Your task to perform on an android device: see sites visited before in the chrome app Image 0: 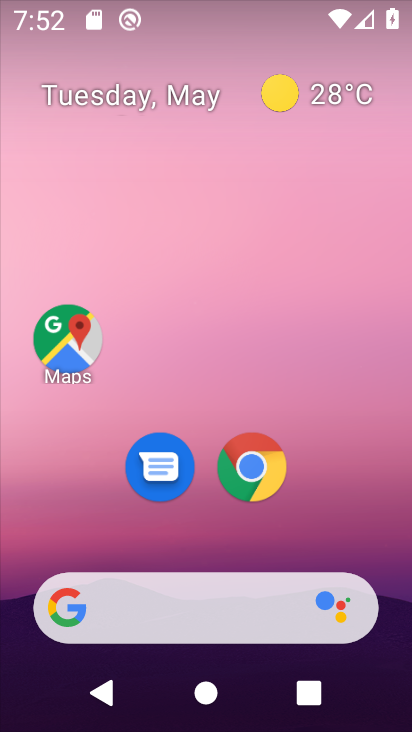
Step 0: click (257, 468)
Your task to perform on an android device: see sites visited before in the chrome app Image 1: 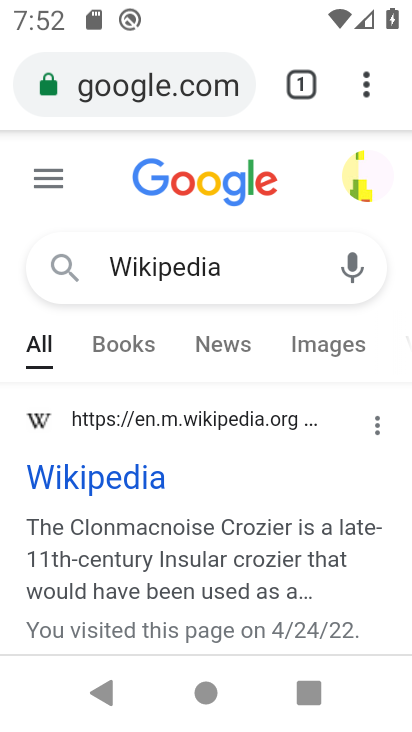
Step 1: click (365, 87)
Your task to perform on an android device: see sites visited before in the chrome app Image 2: 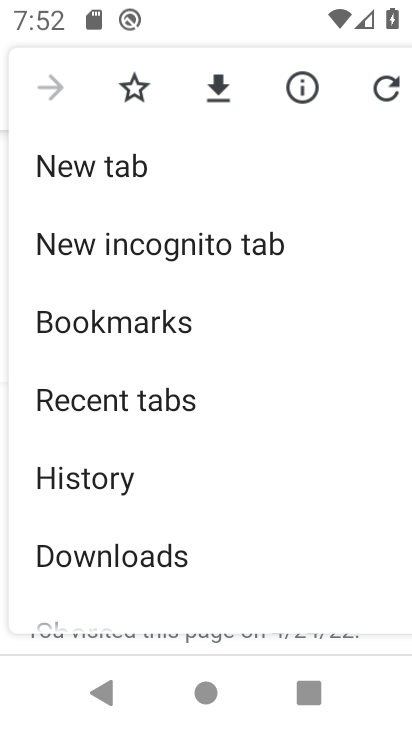
Step 2: drag from (247, 582) to (238, 272)
Your task to perform on an android device: see sites visited before in the chrome app Image 3: 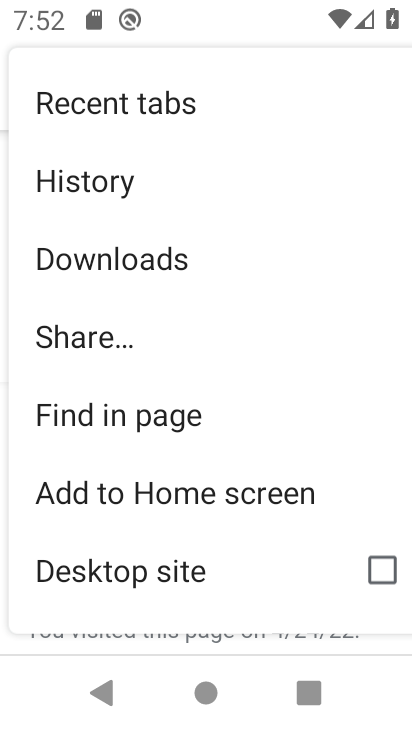
Step 3: drag from (287, 580) to (267, 288)
Your task to perform on an android device: see sites visited before in the chrome app Image 4: 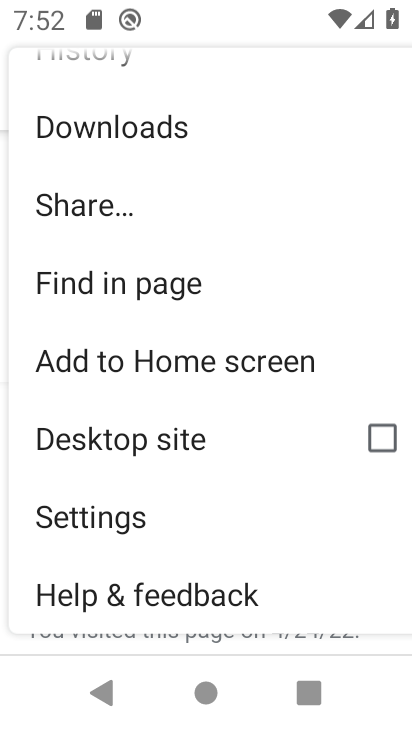
Step 4: drag from (268, 147) to (294, 513)
Your task to perform on an android device: see sites visited before in the chrome app Image 5: 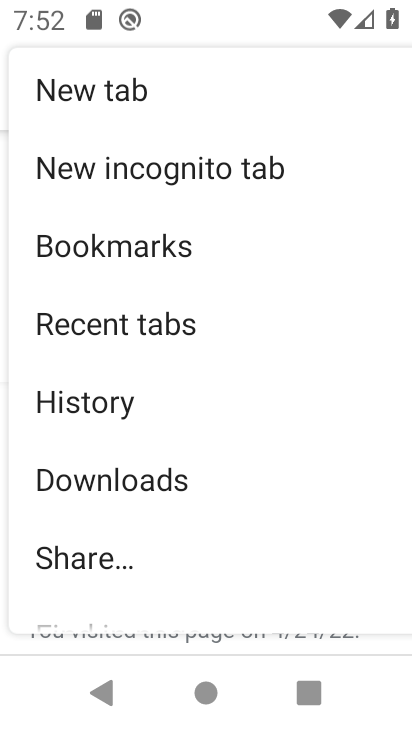
Step 5: drag from (271, 115) to (319, 564)
Your task to perform on an android device: see sites visited before in the chrome app Image 6: 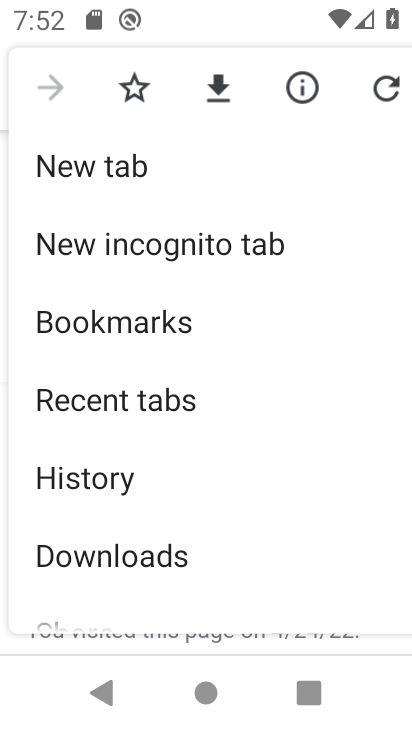
Step 6: click (129, 405)
Your task to perform on an android device: see sites visited before in the chrome app Image 7: 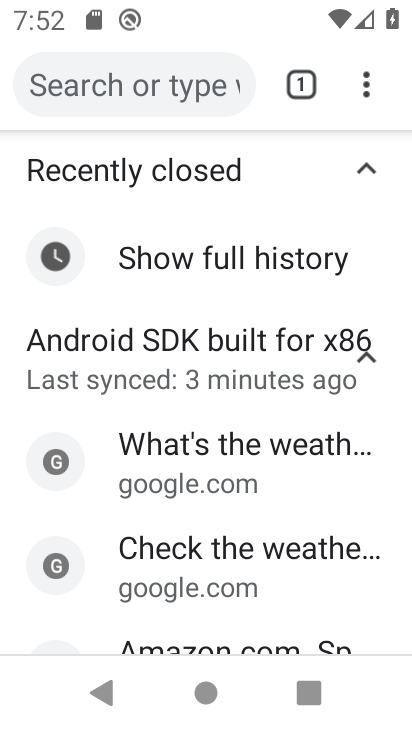
Step 7: task complete